Your task to perform on an android device: Is it going to rain tomorrow? Image 0: 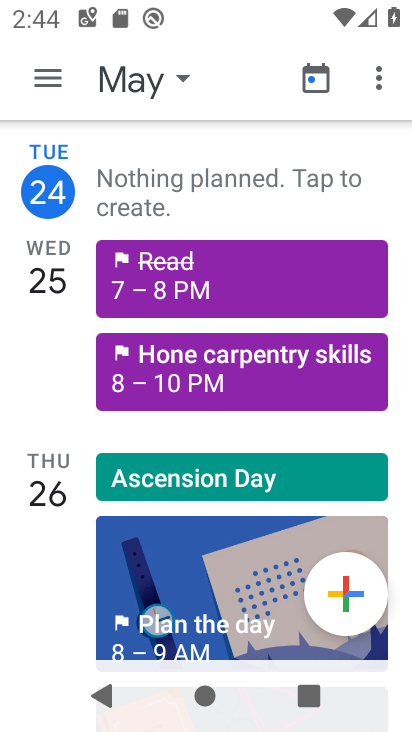
Step 0: press home button
Your task to perform on an android device: Is it going to rain tomorrow? Image 1: 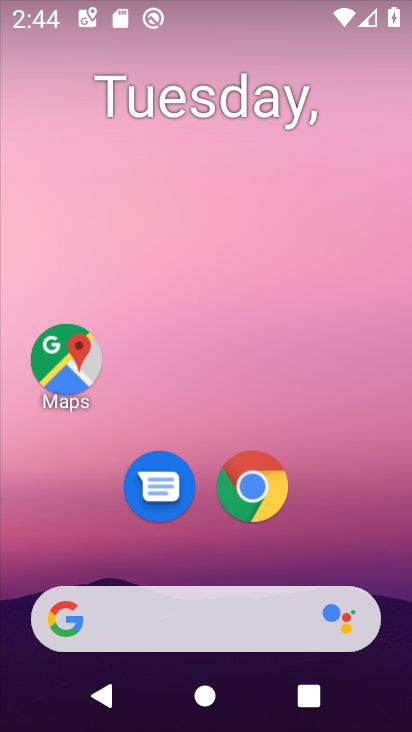
Step 1: drag from (214, 556) to (228, 2)
Your task to perform on an android device: Is it going to rain tomorrow? Image 2: 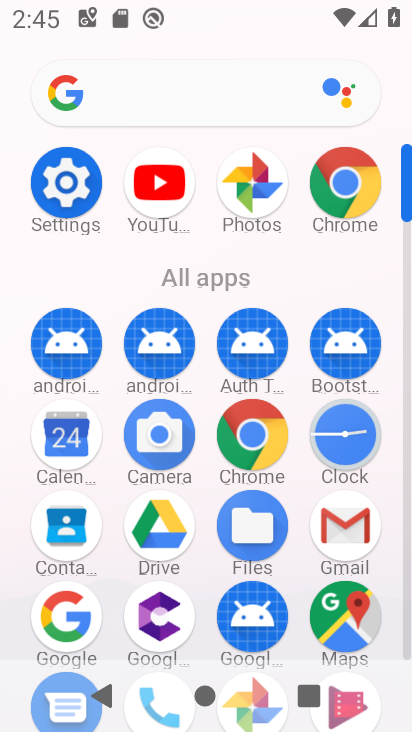
Step 2: press home button
Your task to perform on an android device: Is it going to rain tomorrow? Image 3: 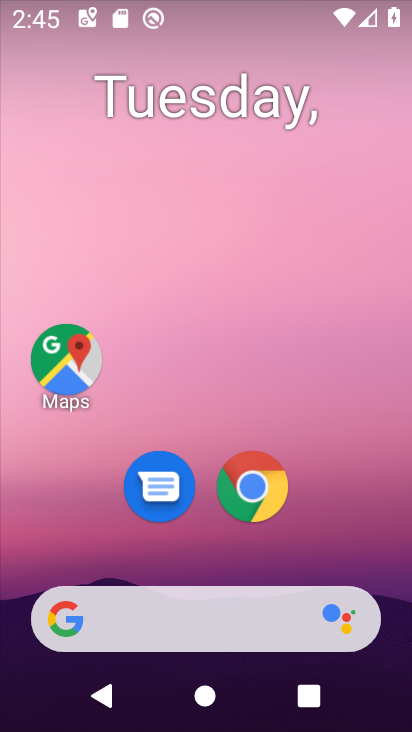
Step 3: drag from (2, 211) to (387, 254)
Your task to perform on an android device: Is it going to rain tomorrow? Image 4: 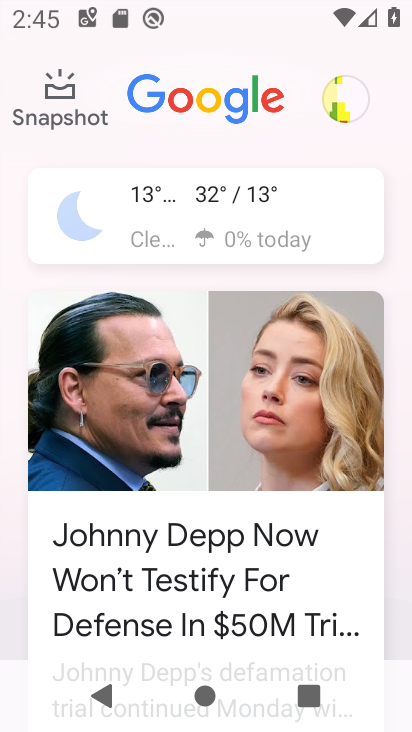
Step 4: click (263, 200)
Your task to perform on an android device: Is it going to rain tomorrow? Image 5: 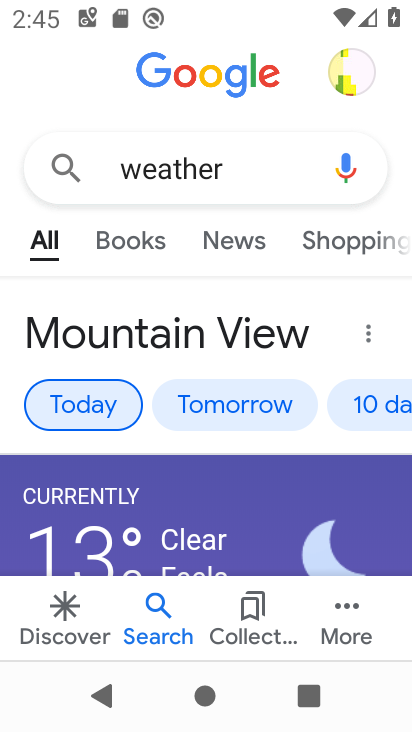
Step 5: task complete